Your task to perform on an android device: turn off airplane mode Image 0: 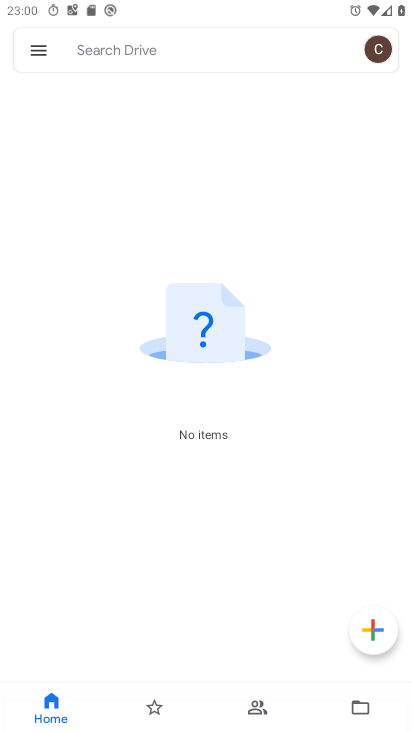
Step 0: drag from (180, 584) to (268, 300)
Your task to perform on an android device: turn off airplane mode Image 1: 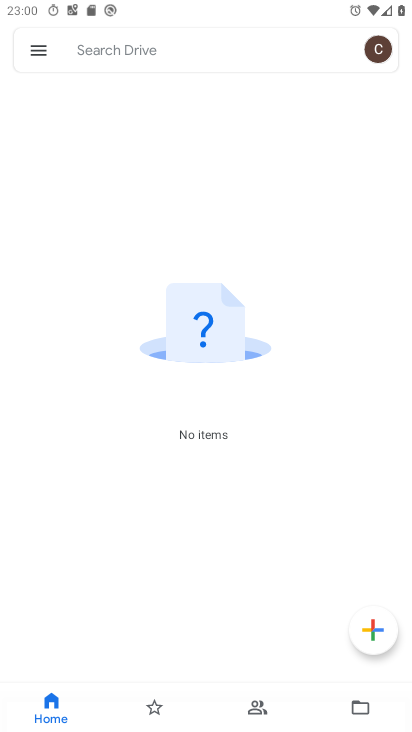
Step 1: press home button
Your task to perform on an android device: turn off airplane mode Image 2: 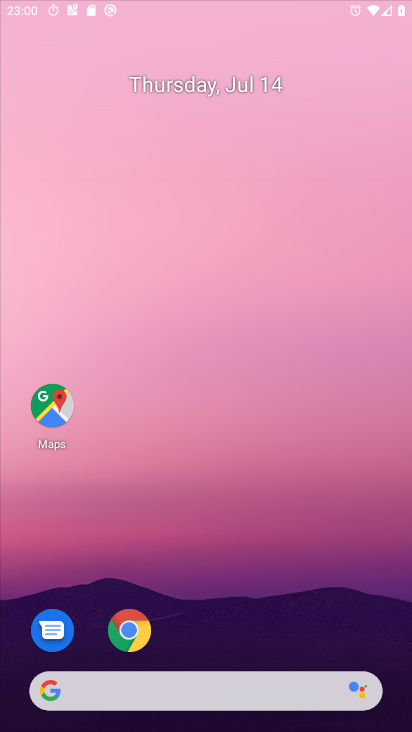
Step 2: drag from (205, 631) to (272, 129)
Your task to perform on an android device: turn off airplane mode Image 3: 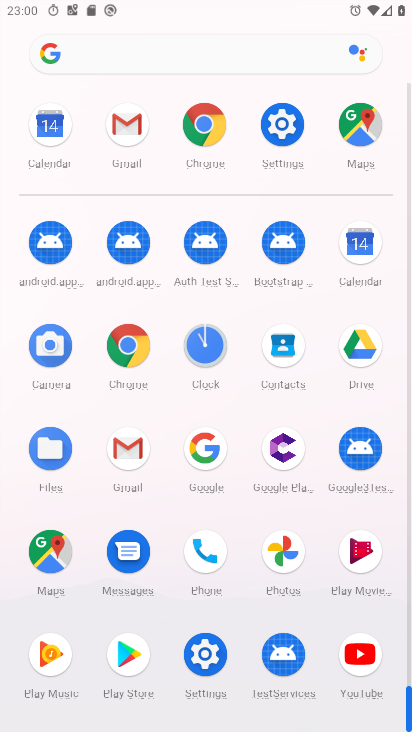
Step 3: click (280, 119)
Your task to perform on an android device: turn off airplane mode Image 4: 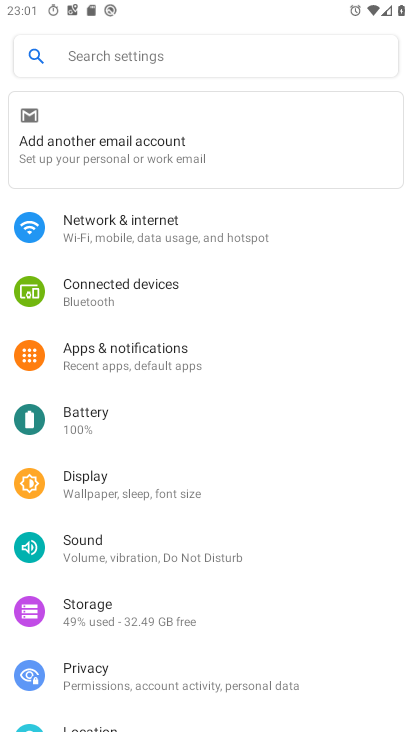
Step 4: click (136, 223)
Your task to perform on an android device: turn off airplane mode Image 5: 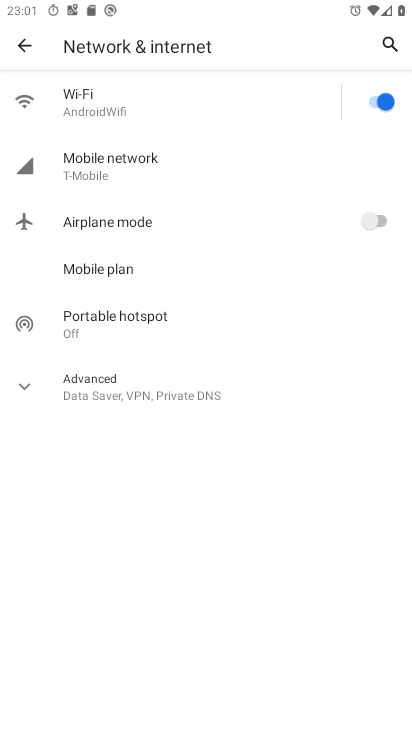
Step 5: click (132, 402)
Your task to perform on an android device: turn off airplane mode Image 6: 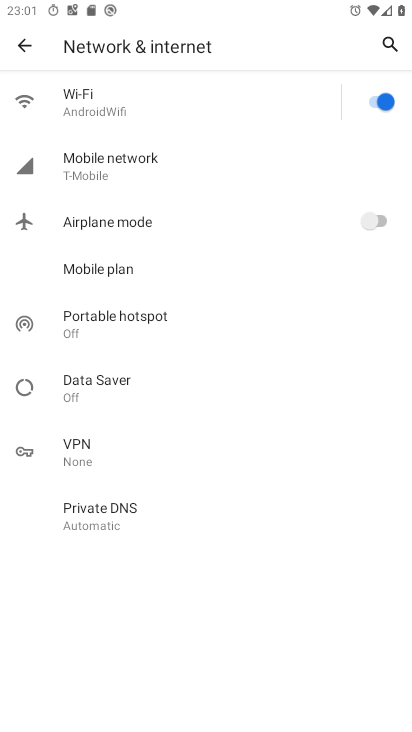
Step 6: task complete